Your task to perform on an android device: uninstall "Google Pay: Save, Pay, Manage" Image 0: 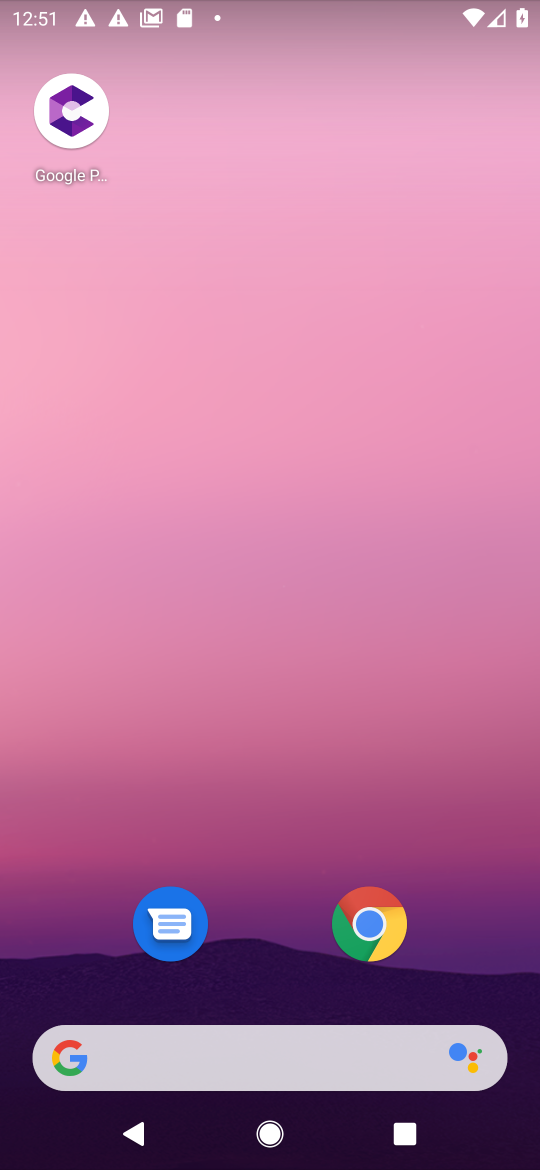
Step 0: drag from (287, 927) to (401, 10)
Your task to perform on an android device: uninstall "Google Pay: Save, Pay, Manage" Image 1: 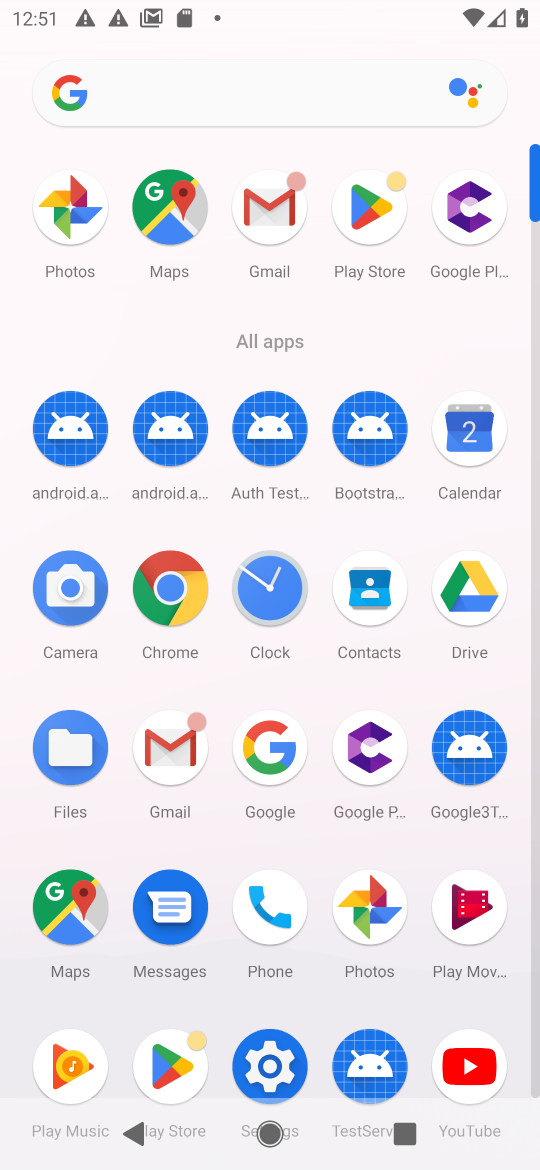
Step 1: click (365, 229)
Your task to perform on an android device: uninstall "Google Pay: Save, Pay, Manage" Image 2: 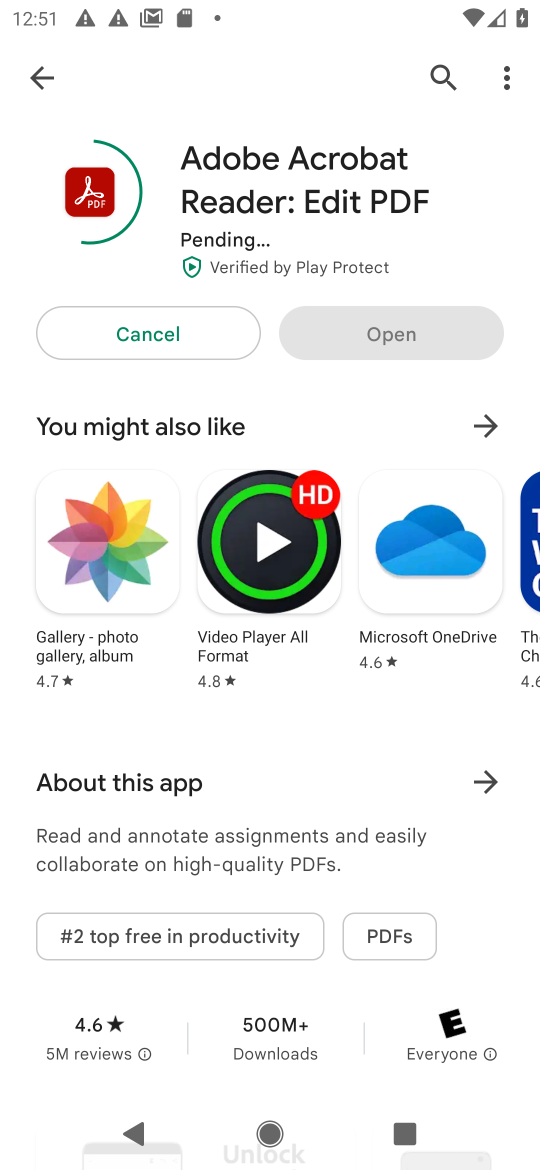
Step 2: click (453, 78)
Your task to perform on an android device: uninstall "Google Pay: Save, Pay, Manage" Image 3: 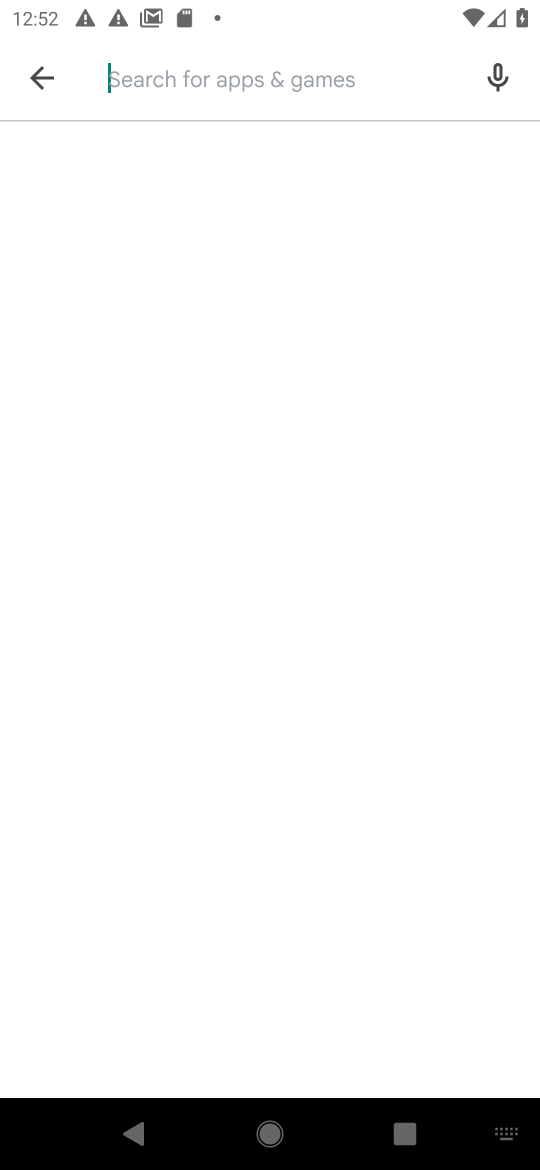
Step 3: type "google pay: save, pay, manage"
Your task to perform on an android device: uninstall "Google Pay: Save, Pay, Manage" Image 4: 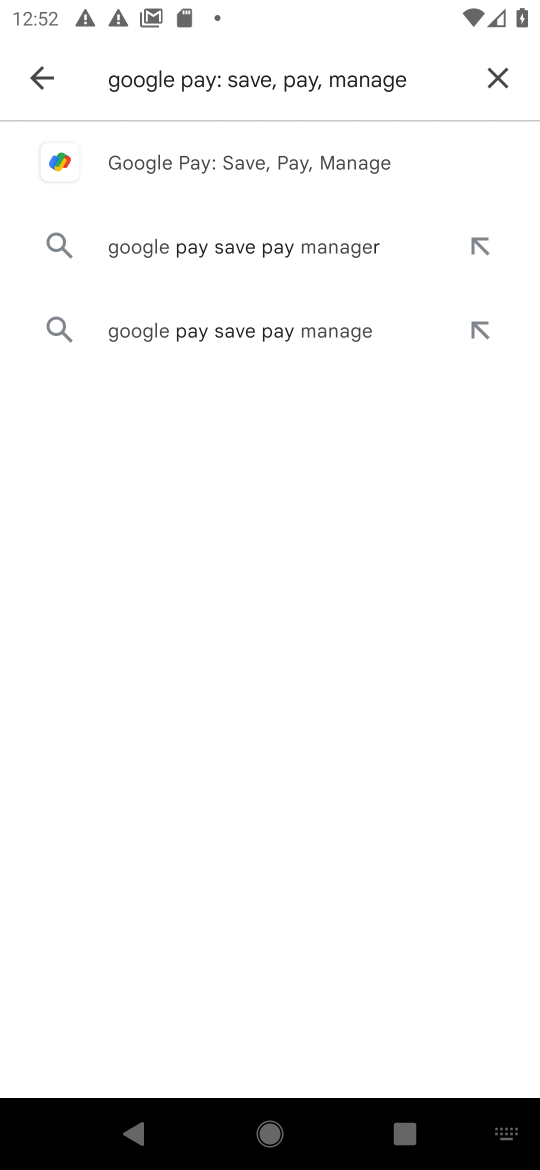
Step 4: click (118, 146)
Your task to perform on an android device: uninstall "Google Pay: Save, Pay, Manage" Image 5: 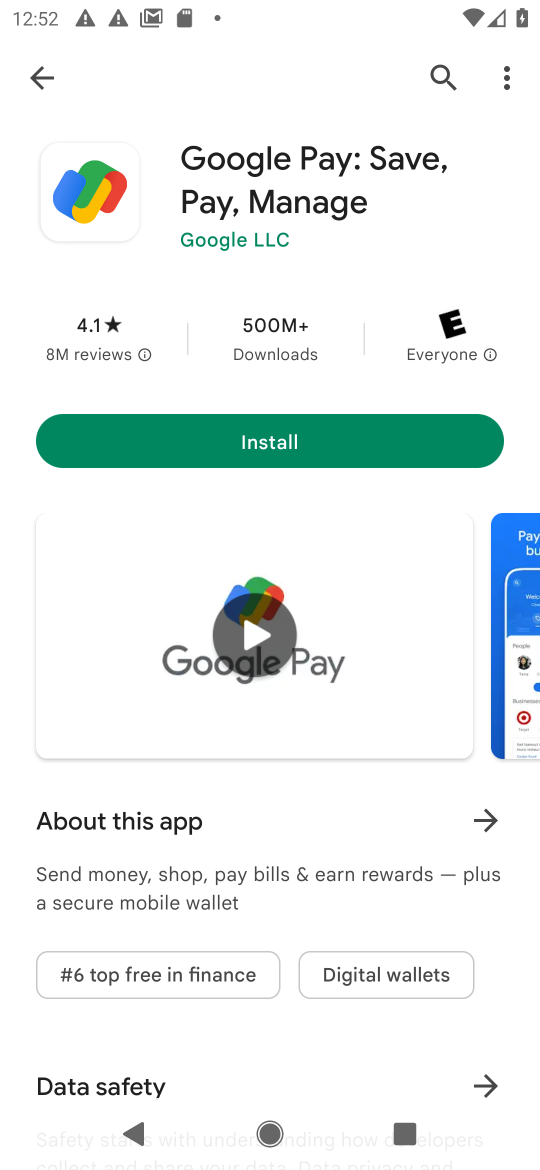
Step 5: task complete